Your task to perform on an android device: Go to network settings Image 0: 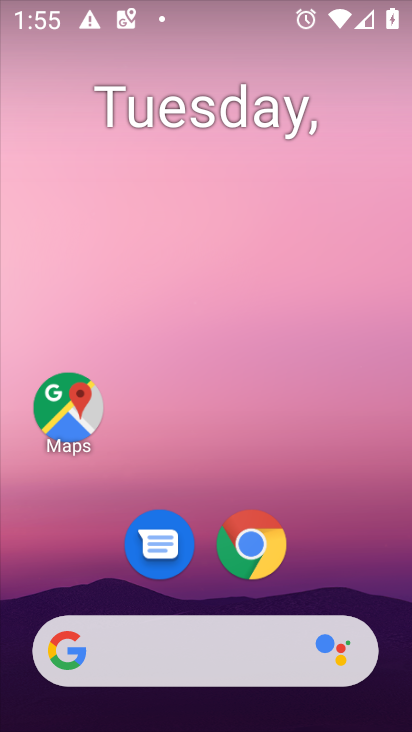
Step 0: drag from (326, 527) to (392, 177)
Your task to perform on an android device: Go to network settings Image 1: 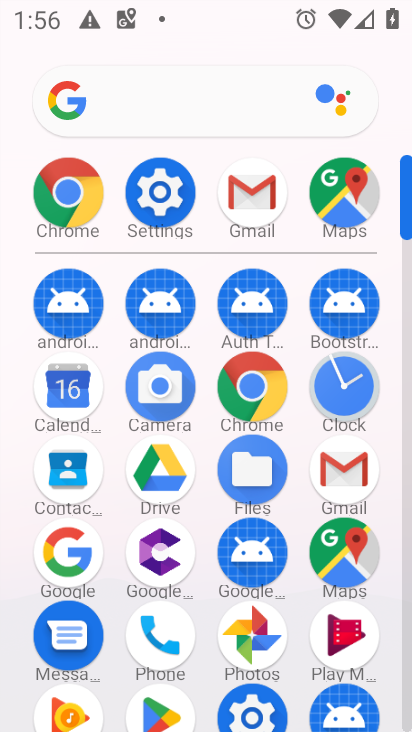
Step 1: click (178, 186)
Your task to perform on an android device: Go to network settings Image 2: 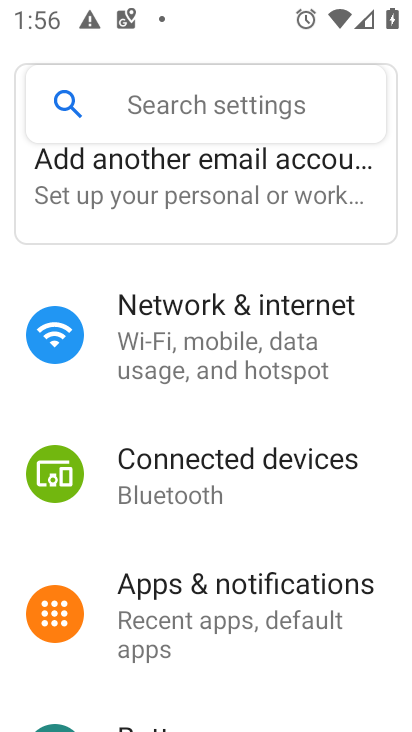
Step 2: click (212, 350)
Your task to perform on an android device: Go to network settings Image 3: 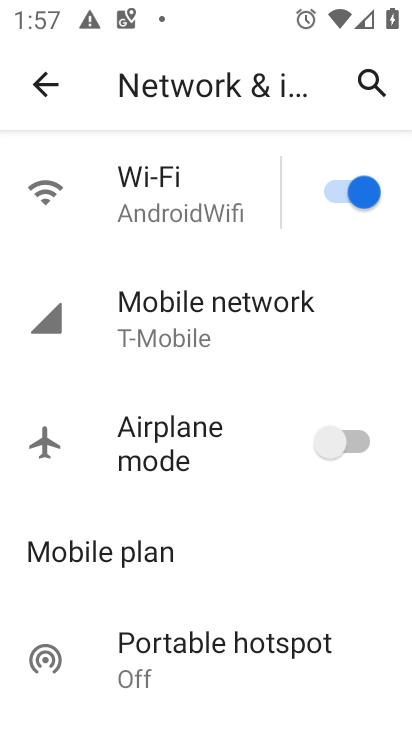
Step 3: task complete